Your task to perform on an android device: Go to eBay Image 0: 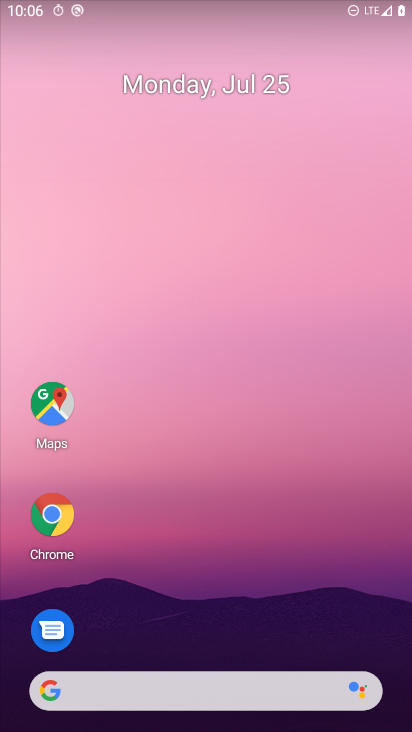
Step 0: click (155, 694)
Your task to perform on an android device: Go to eBay Image 1: 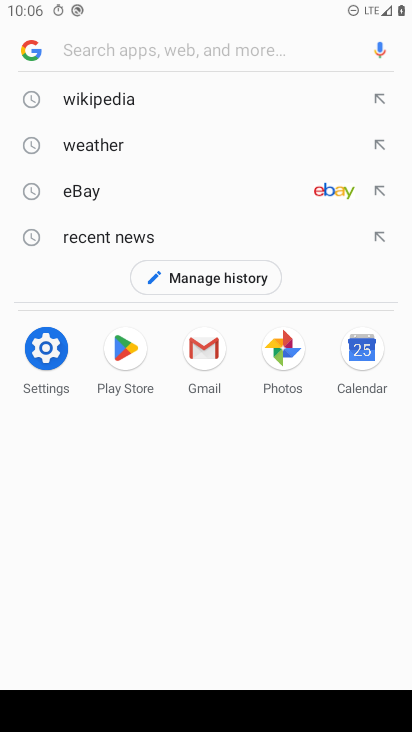
Step 1: click (85, 181)
Your task to perform on an android device: Go to eBay Image 2: 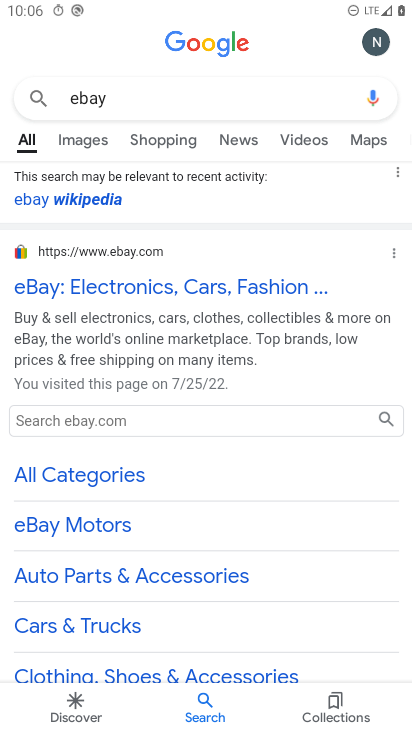
Step 2: task complete